Your task to perform on an android device: Turn off the flashlight Image 0: 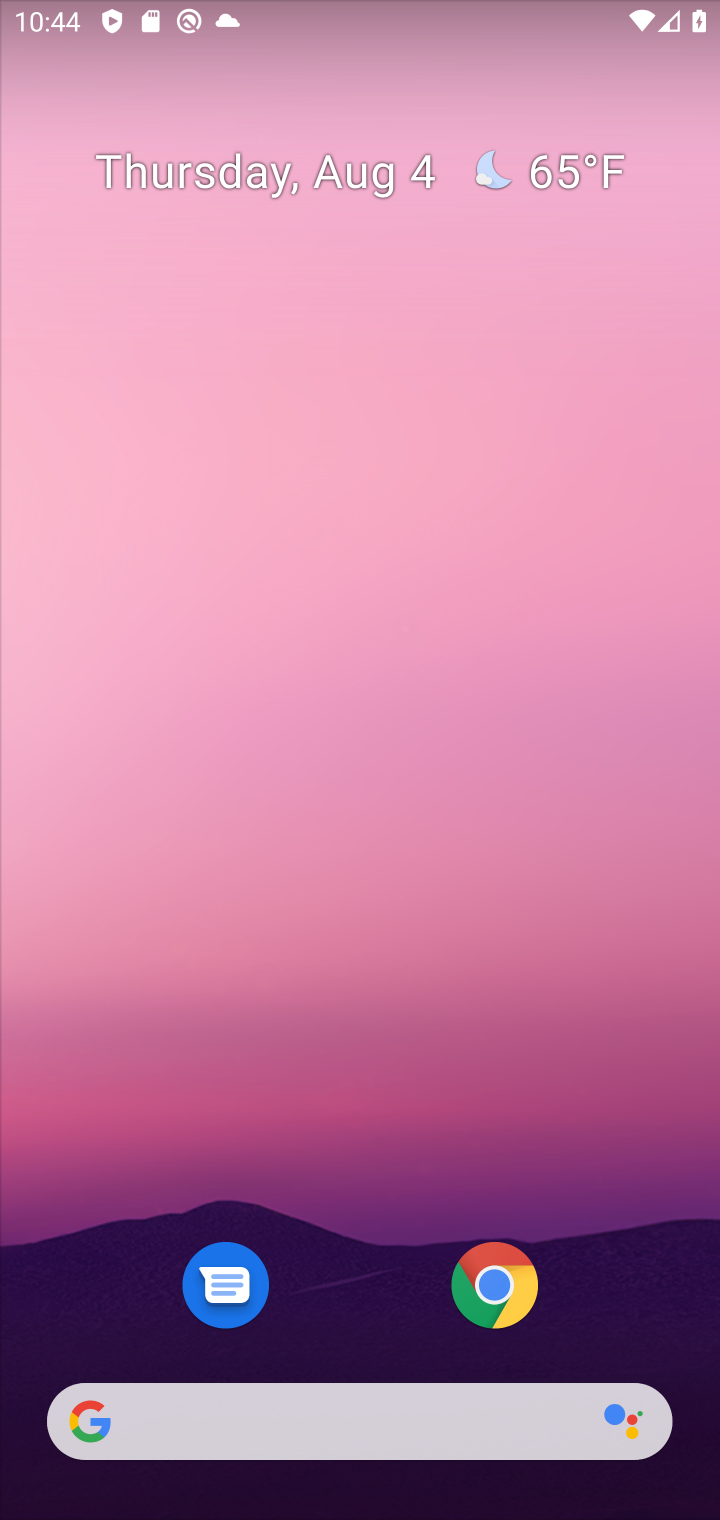
Step 0: drag from (400, 1318) to (424, 79)
Your task to perform on an android device: Turn off the flashlight Image 1: 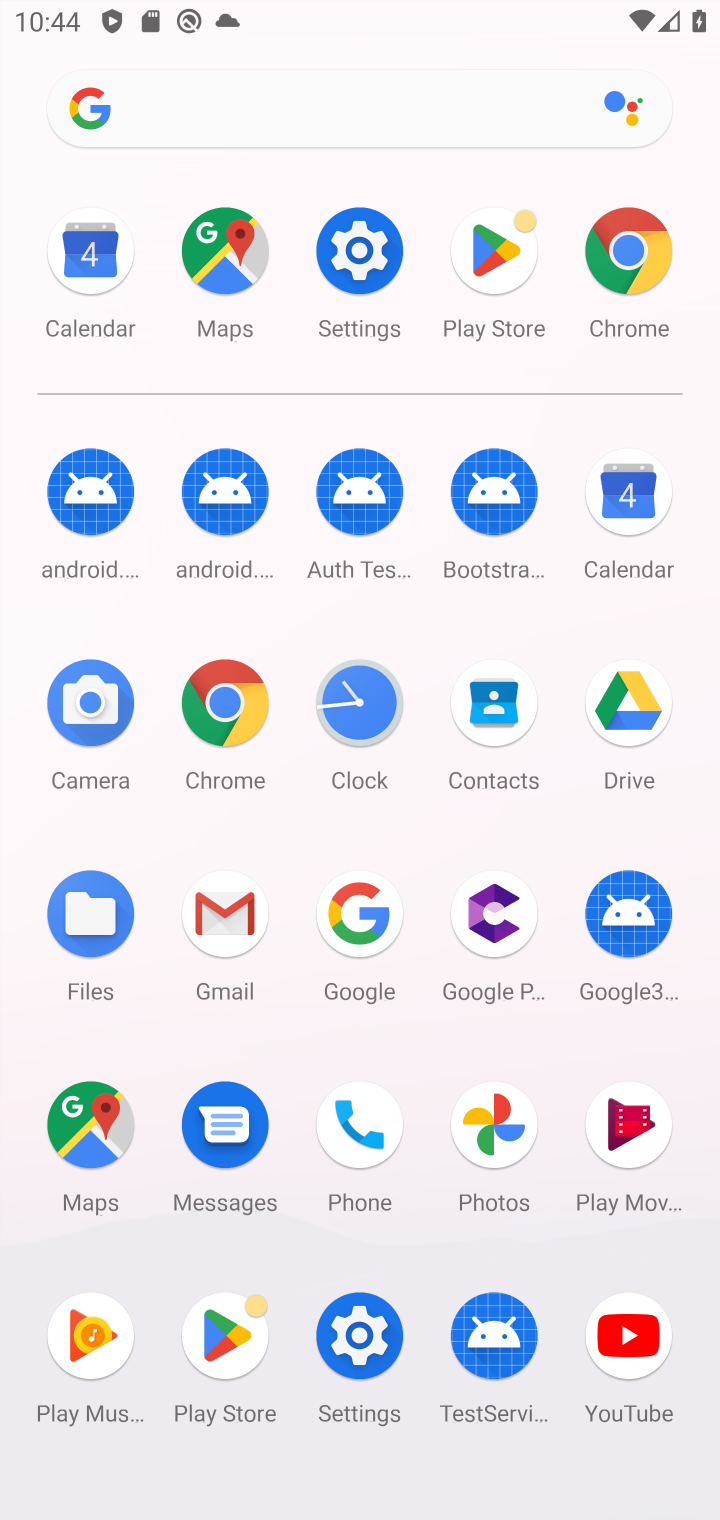
Step 1: task complete